Your task to perform on an android device: turn off location history Image 0: 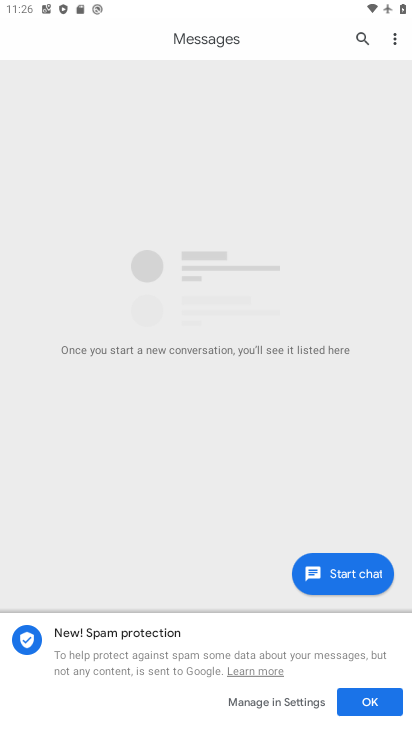
Step 0: press home button
Your task to perform on an android device: turn off location history Image 1: 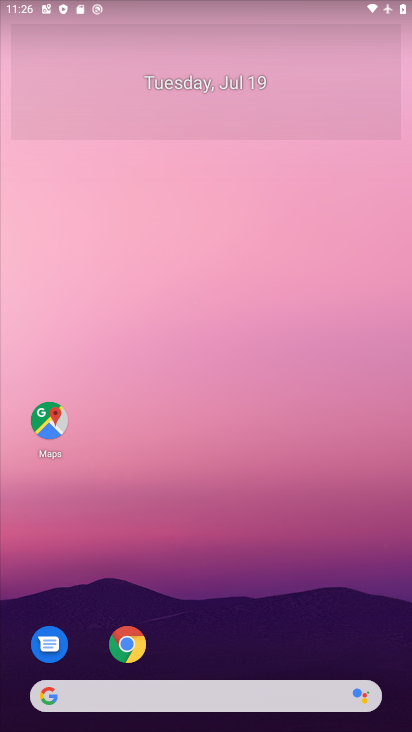
Step 1: drag from (24, 686) to (212, 172)
Your task to perform on an android device: turn off location history Image 2: 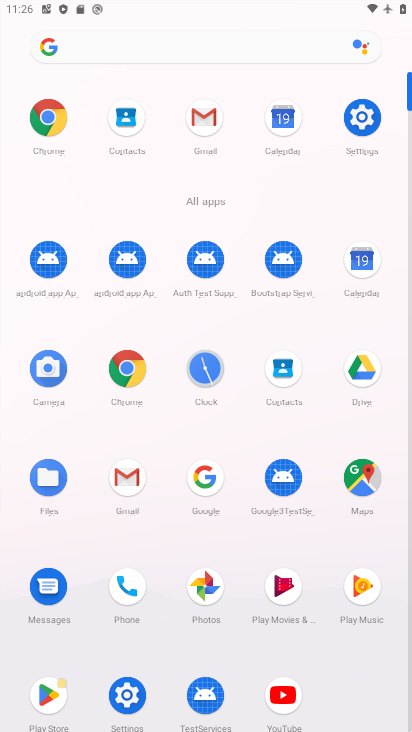
Step 2: click (139, 691)
Your task to perform on an android device: turn off location history Image 3: 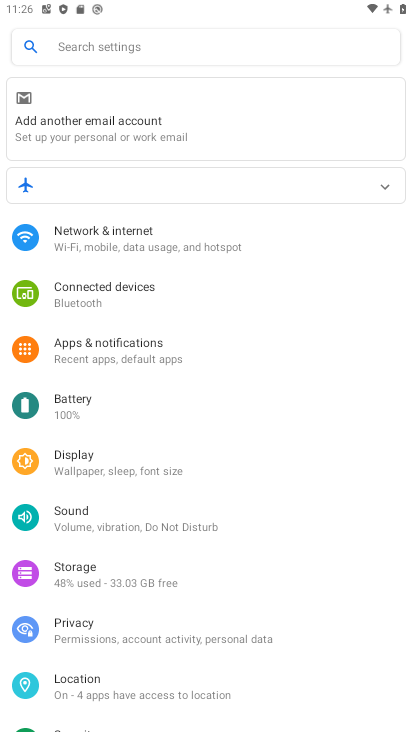
Step 3: click (105, 688)
Your task to perform on an android device: turn off location history Image 4: 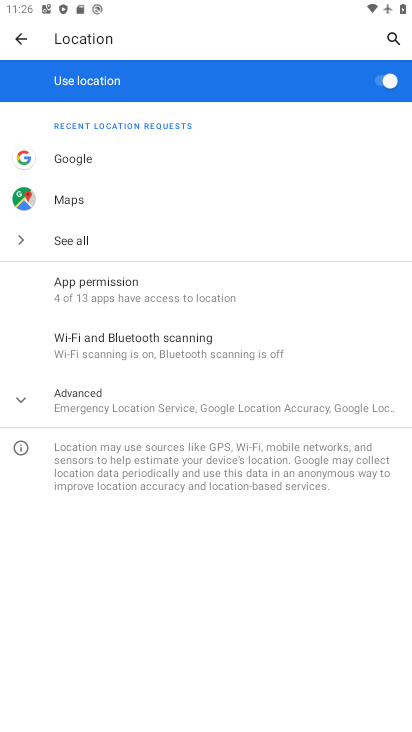
Step 4: click (96, 393)
Your task to perform on an android device: turn off location history Image 5: 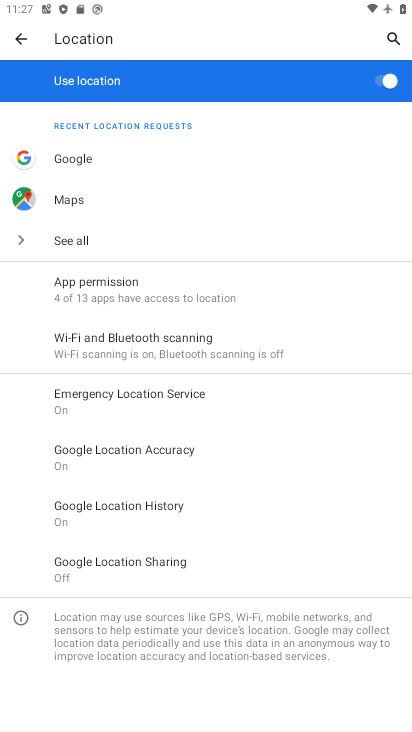
Step 5: click (106, 514)
Your task to perform on an android device: turn off location history Image 6: 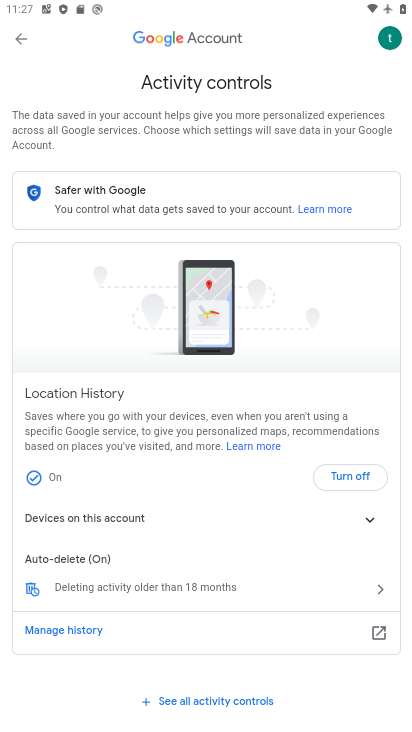
Step 6: click (358, 473)
Your task to perform on an android device: turn off location history Image 7: 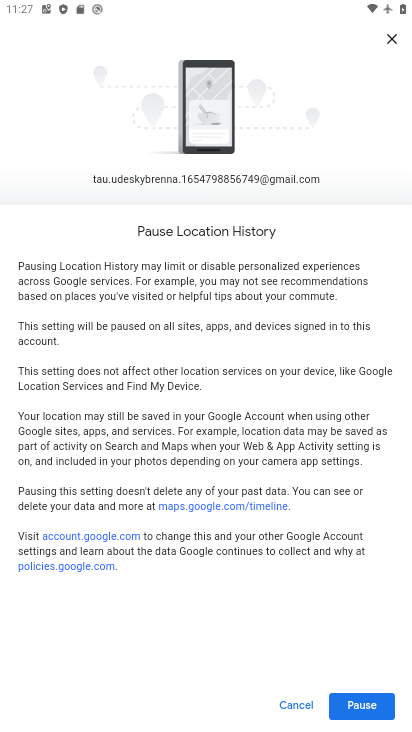
Step 7: click (367, 698)
Your task to perform on an android device: turn off location history Image 8: 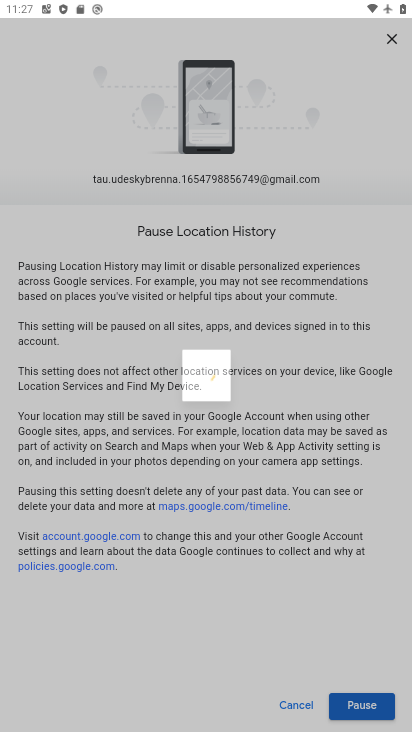
Step 8: click (364, 703)
Your task to perform on an android device: turn off location history Image 9: 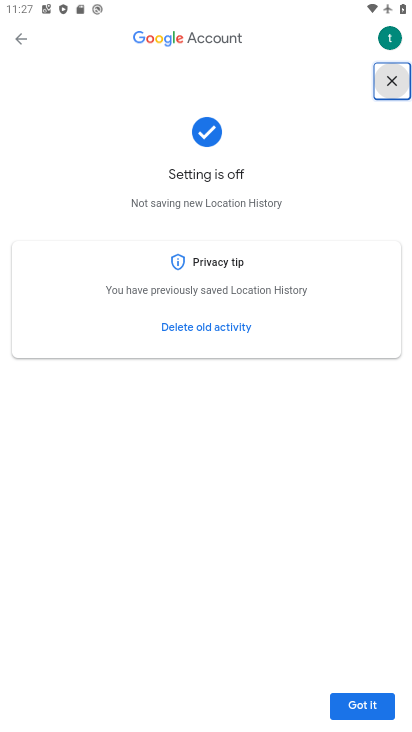
Step 9: click (360, 709)
Your task to perform on an android device: turn off location history Image 10: 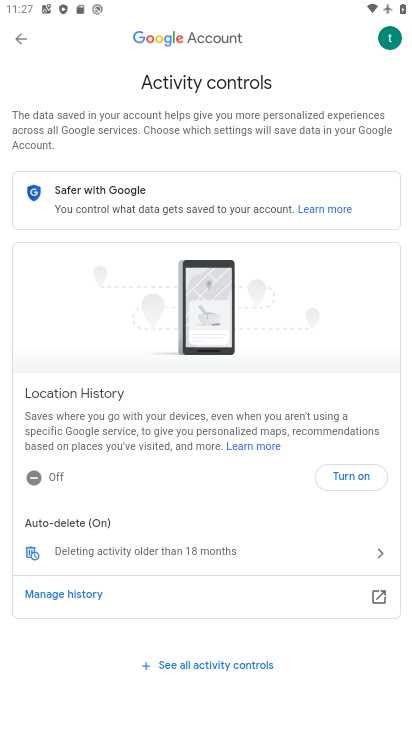
Step 10: task complete